Your task to perform on an android device: toggle data saver in the chrome app Image 0: 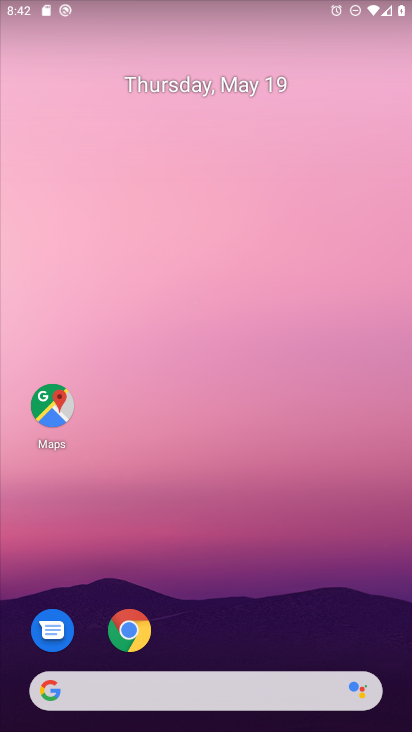
Step 0: click (135, 625)
Your task to perform on an android device: toggle data saver in the chrome app Image 1: 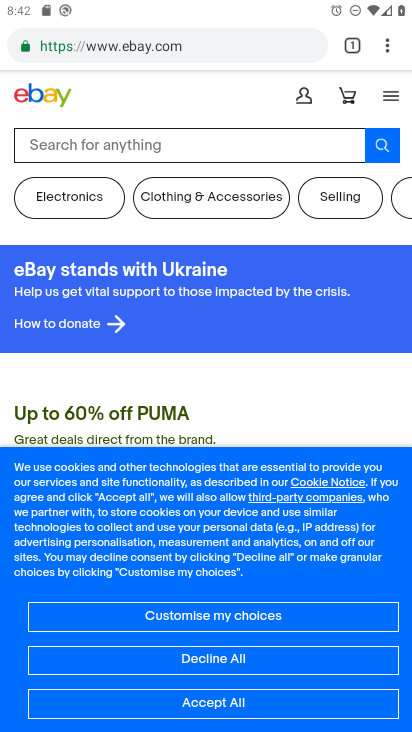
Step 1: click (396, 42)
Your task to perform on an android device: toggle data saver in the chrome app Image 2: 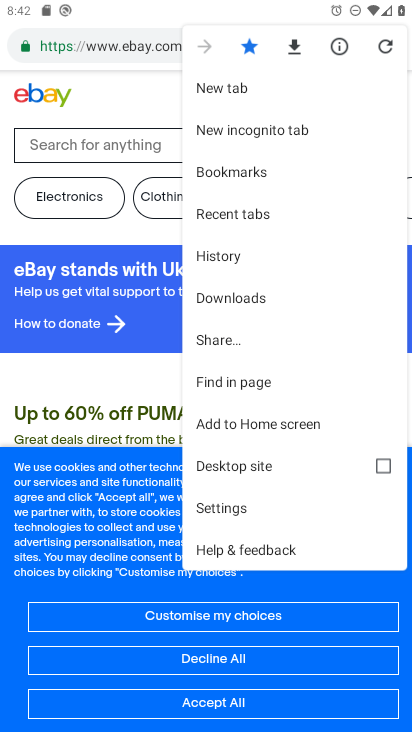
Step 2: click (253, 496)
Your task to perform on an android device: toggle data saver in the chrome app Image 3: 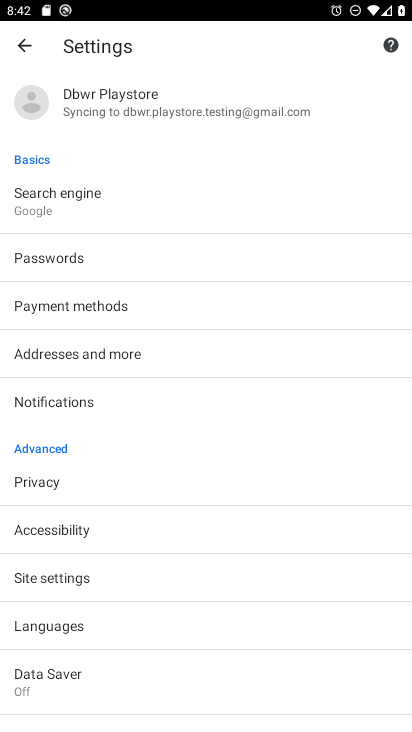
Step 3: click (58, 689)
Your task to perform on an android device: toggle data saver in the chrome app Image 4: 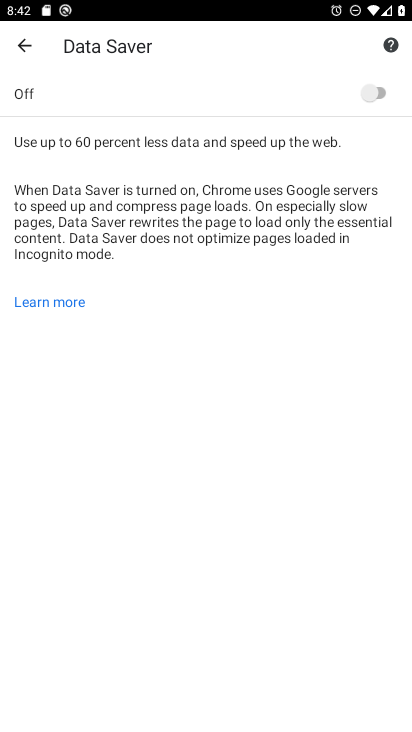
Step 4: click (386, 97)
Your task to perform on an android device: toggle data saver in the chrome app Image 5: 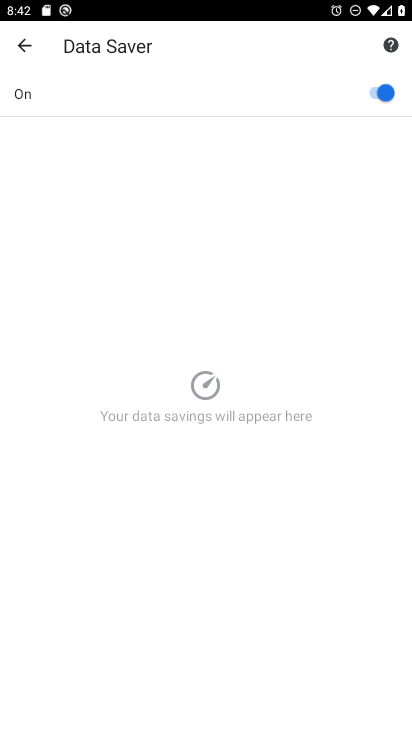
Step 5: click (386, 97)
Your task to perform on an android device: toggle data saver in the chrome app Image 6: 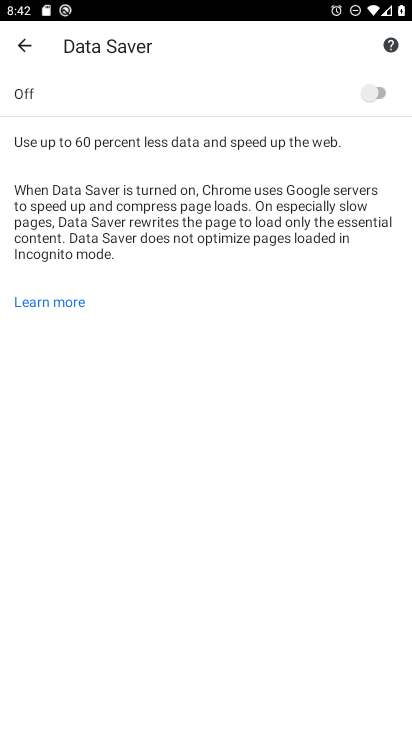
Step 6: click (386, 97)
Your task to perform on an android device: toggle data saver in the chrome app Image 7: 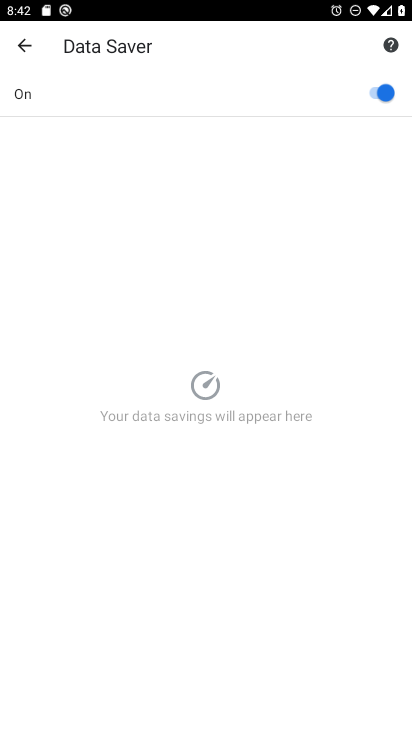
Step 7: click (386, 97)
Your task to perform on an android device: toggle data saver in the chrome app Image 8: 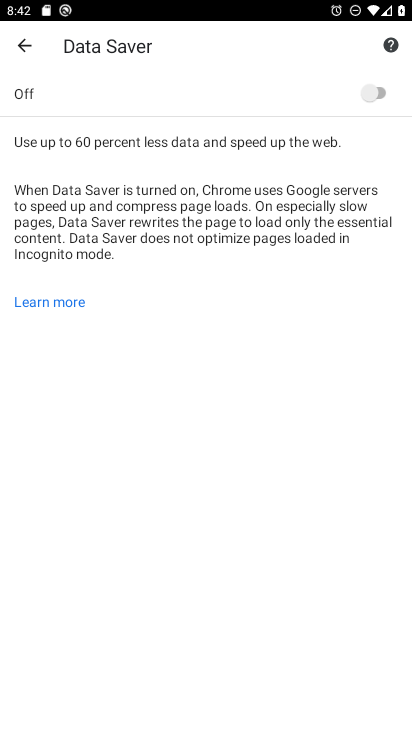
Step 8: task complete